Your task to perform on an android device: refresh tabs in the chrome app Image 0: 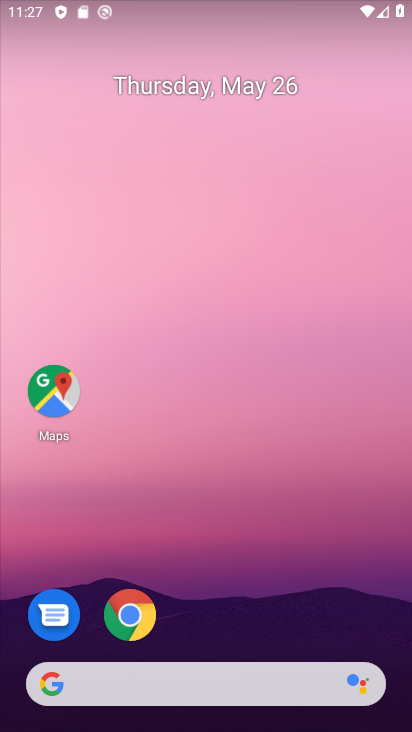
Step 0: click (143, 618)
Your task to perform on an android device: refresh tabs in the chrome app Image 1: 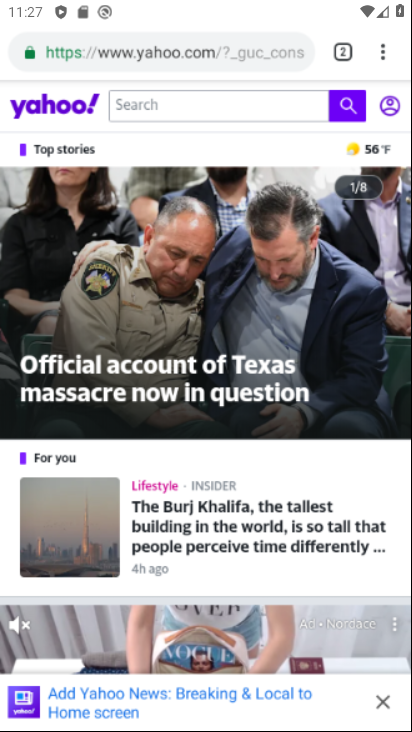
Step 1: click (384, 54)
Your task to perform on an android device: refresh tabs in the chrome app Image 2: 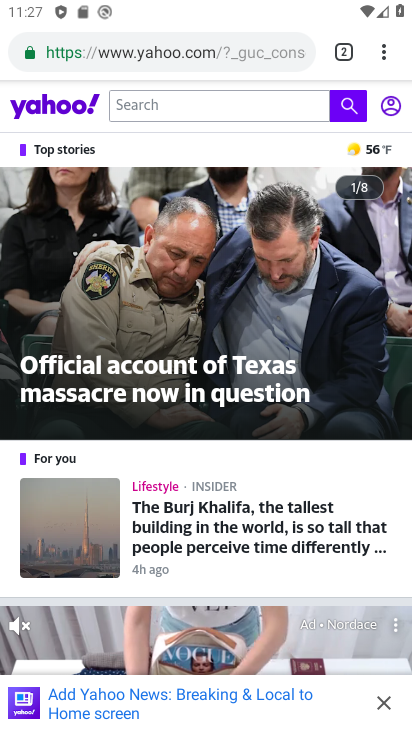
Step 2: click (384, 53)
Your task to perform on an android device: refresh tabs in the chrome app Image 3: 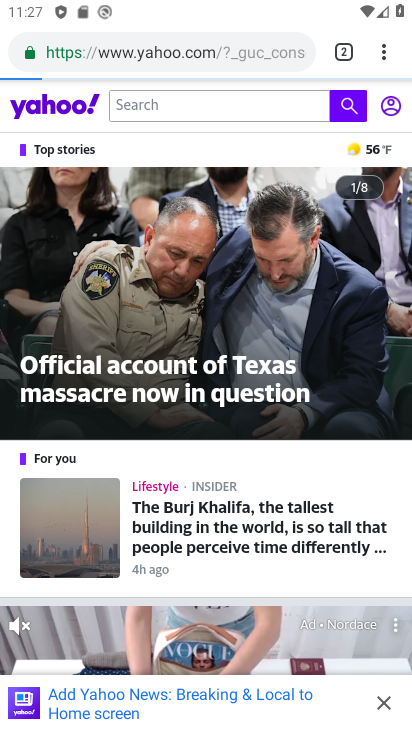
Step 3: task complete